Your task to perform on an android device: Open calendar and show me the fourth week of next month Image 0: 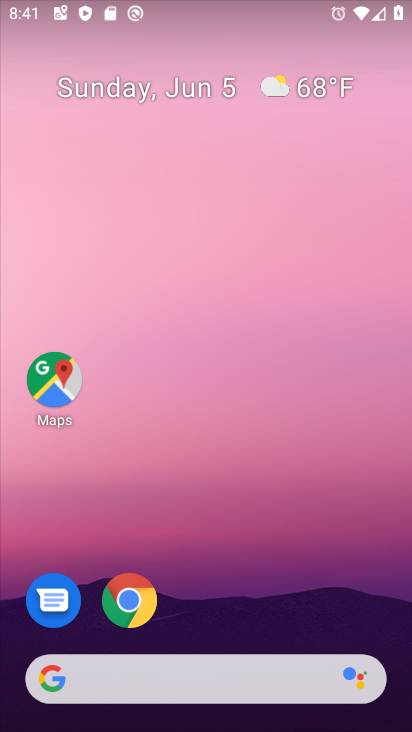
Step 0: drag from (333, 612) to (236, 69)
Your task to perform on an android device: Open calendar and show me the fourth week of next month Image 1: 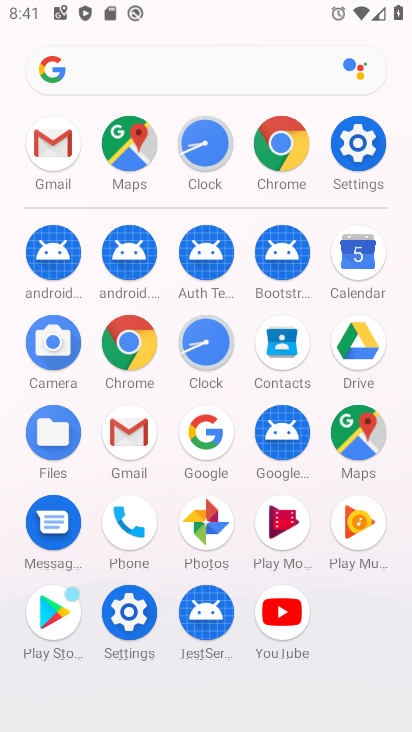
Step 1: click (348, 273)
Your task to perform on an android device: Open calendar and show me the fourth week of next month Image 2: 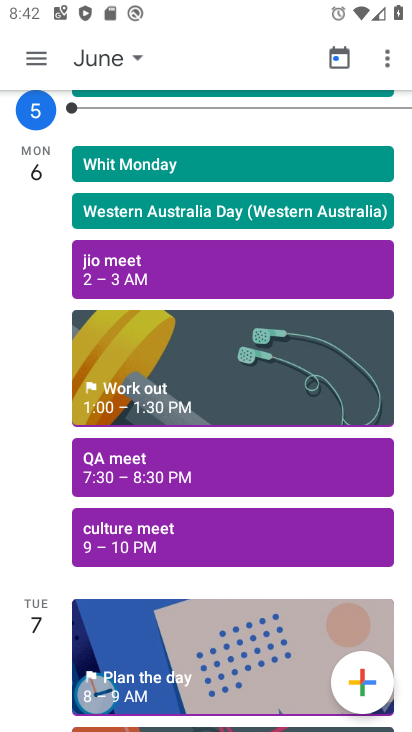
Step 2: click (100, 55)
Your task to perform on an android device: Open calendar and show me the fourth week of next month Image 3: 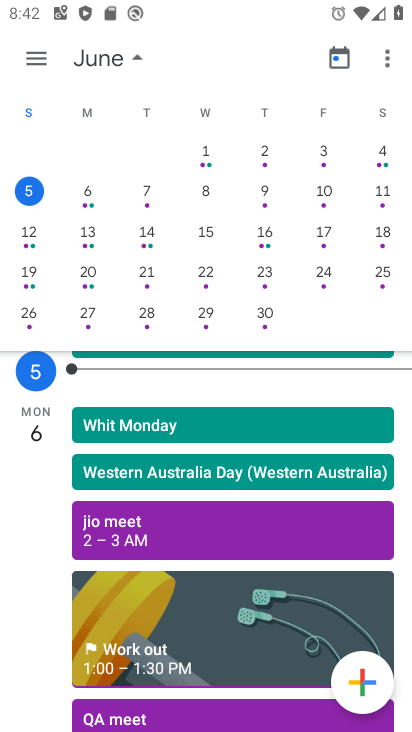
Step 3: drag from (364, 221) to (90, 198)
Your task to perform on an android device: Open calendar and show me the fourth week of next month Image 4: 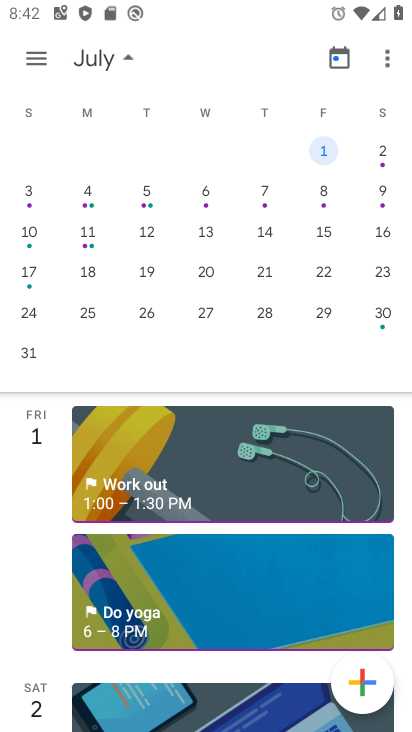
Step 4: click (382, 316)
Your task to perform on an android device: Open calendar and show me the fourth week of next month Image 5: 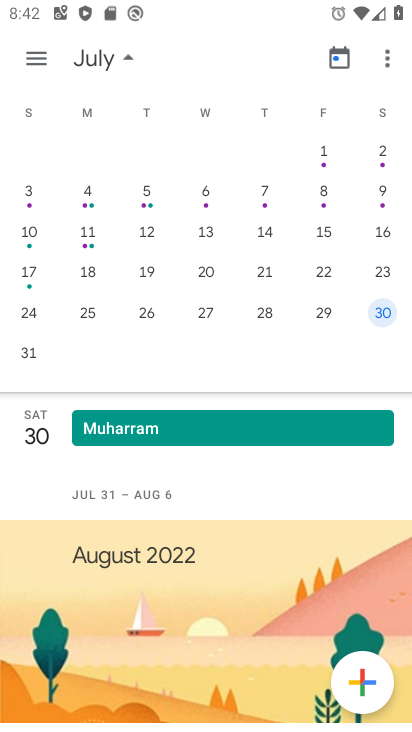
Step 5: task complete